Your task to perform on an android device: change text size in settings app Image 0: 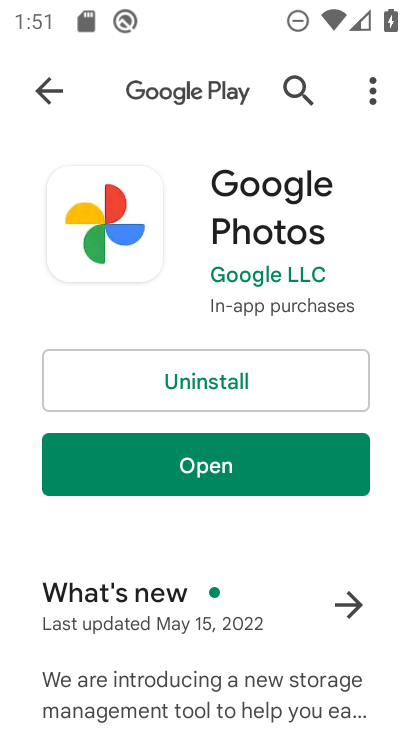
Step 0: press home button
Your task to perform on an android device: change text size in settings app Image 1: 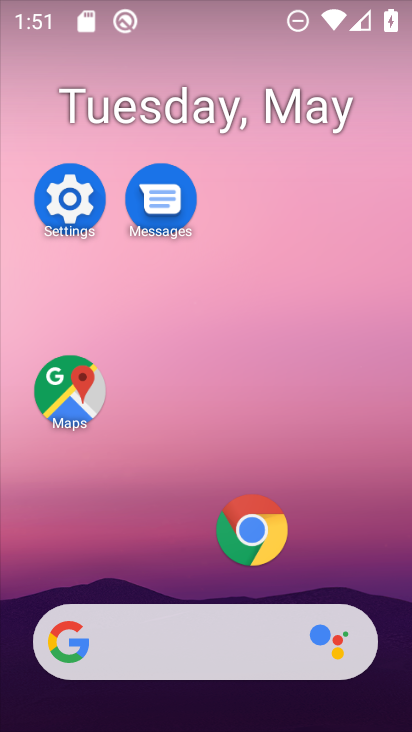
Step 1: drag from (64, 513) to (296, 105)
Your task to perform on an android device: change text size in settings app Image 2: 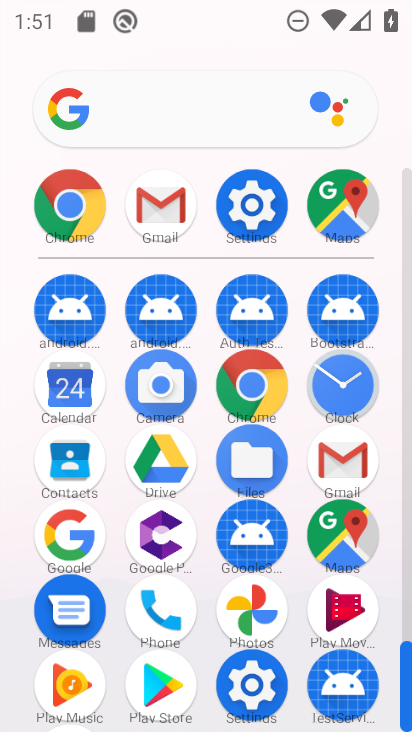
Step 2: click (246, 194)
Your task to perform on an android device: change text size in settings app Image 3: 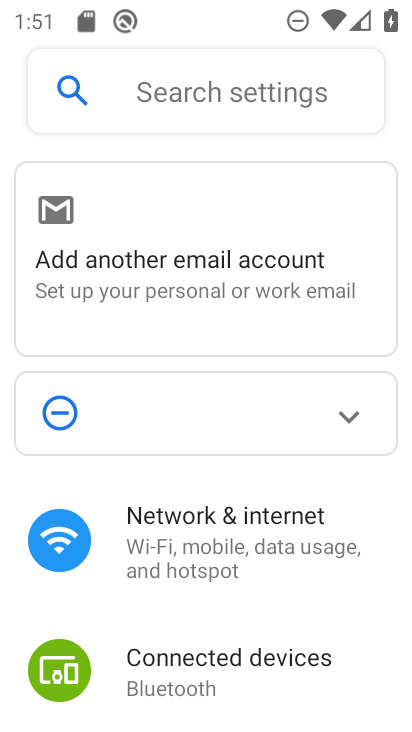
Step 3: drag from (6, 591) to (257, 143)
Your task to perform on an android device: change text size in settings app Image 4: 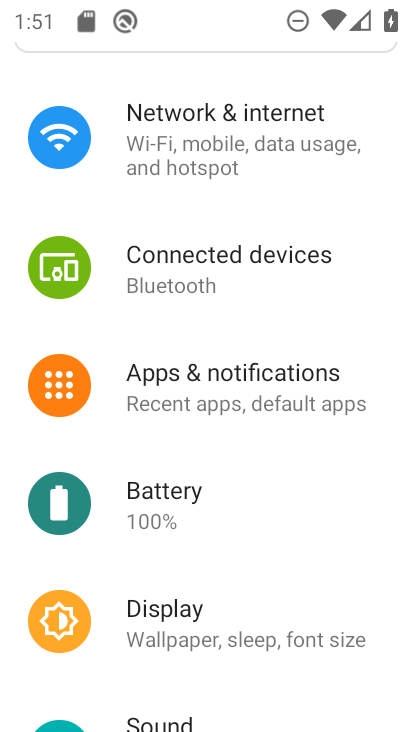
Step 4: click (167, 607)
Your task to perform on an android device: change text size in settings app Image 5: 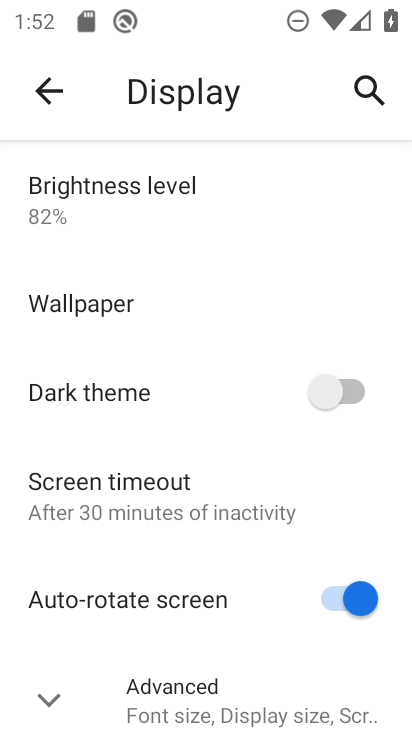
Step 5: click (263, 708)
Your task to perform on an android device: change text size in settings app Image 6: 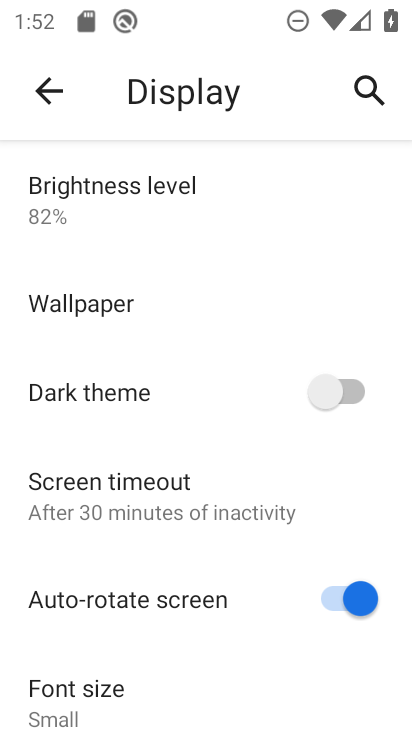
Step 6: drag from (32, 401) to (165, 217)
Your task to perform on an android device: change text size in settings app Image 7: 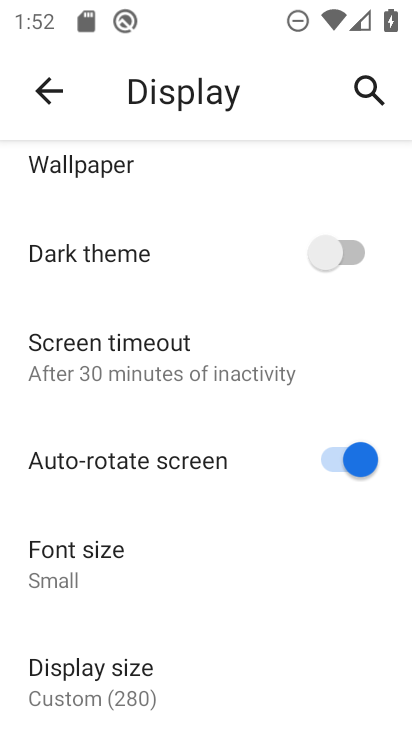
Step 7: click (109, 562)
Your task to perform on an android device: change text size in settings app Image 8: 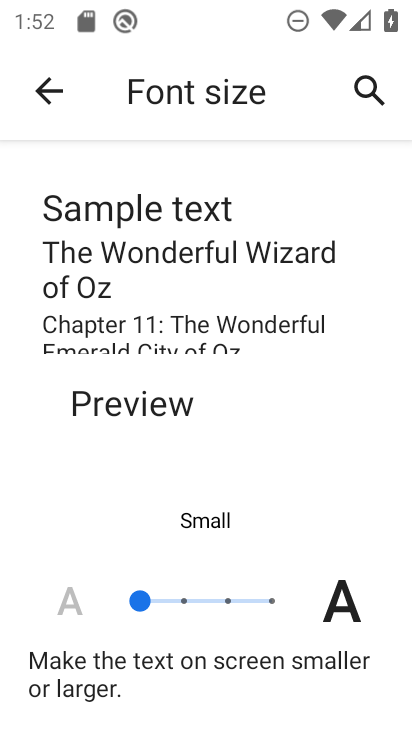
Step 8: click (178, 601)
Your task to perform on an android device: change text size in settings app Image 9: 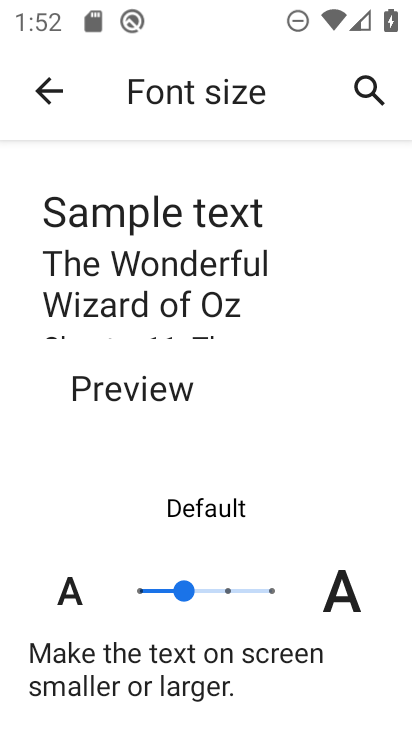
Step 9: task complete